Your task to perform on an android device: Clear the cart on bestbuy. Add razer blade to the cart on bestbuy, then select checkout. Image 0: 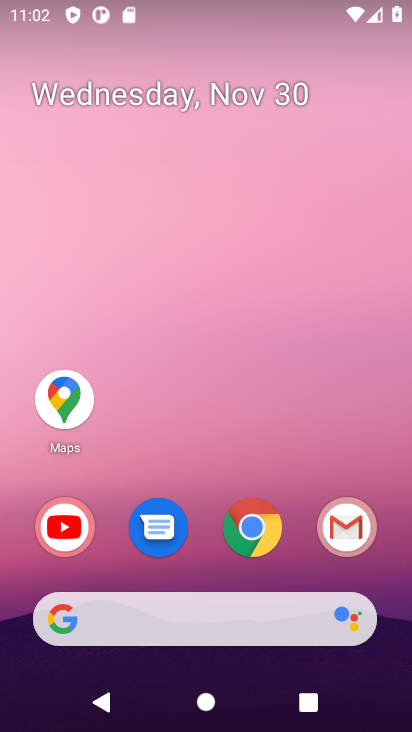
Step 0: click (262, 540)
Your task to perform on an android device: Clear the cart on bestbuy. Add razer blade to the cart on bestbuy, then select checkout. Image 1: 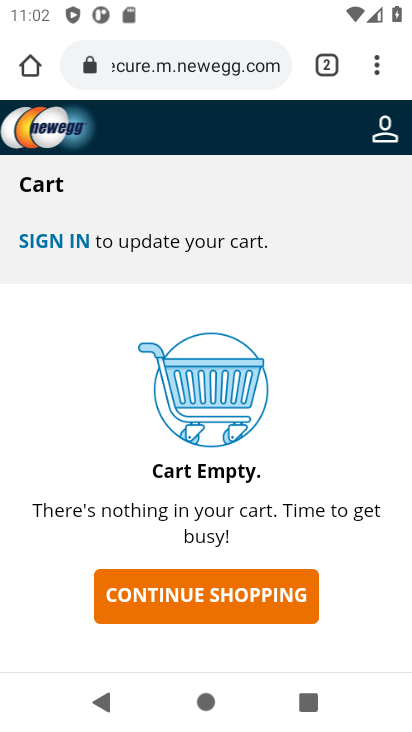
Step 1: click (181, 73)
Your task to perform on an android device: Clear the cart on bestbuy. Add razer blade to the cart on bestbuy, then select checkout. Image 2: 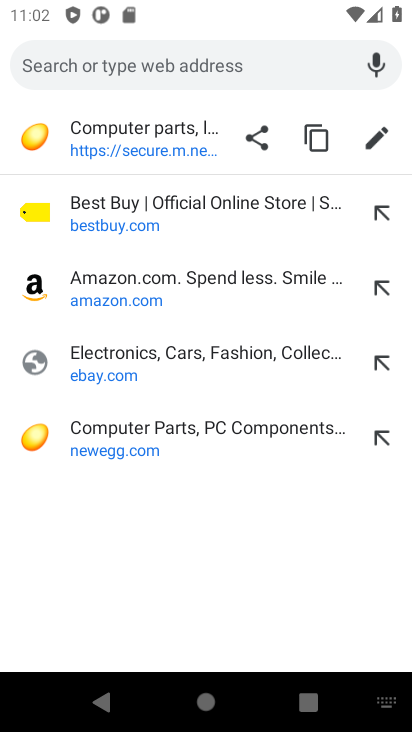
Step 2: click (95, 225)
Your task to perform on an android device: Clear the cart on bestbuy. Add razer blade to the cart on bestbuy, then select checkout. Image 3: 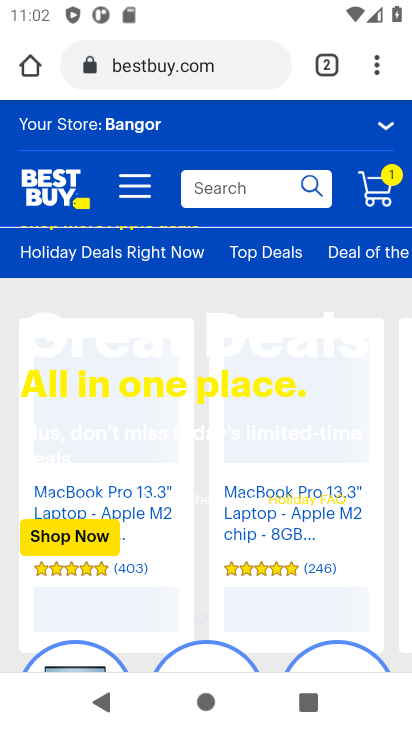
Step 3: click (371, 193)
Your task to perform on an android device: Clear the cart on bestbuy. Add razer blade to the cart on bestbuy, then select checkout. Image 4: 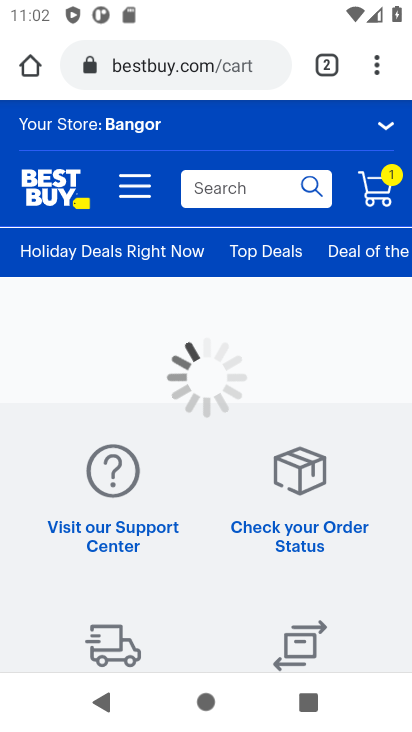
Step 4: click (371, 193)
Your task to perform on an android device: Clear the cart on bestbuy. Add razer blade to the cart on bestbuy, then select checkout. Image 5: 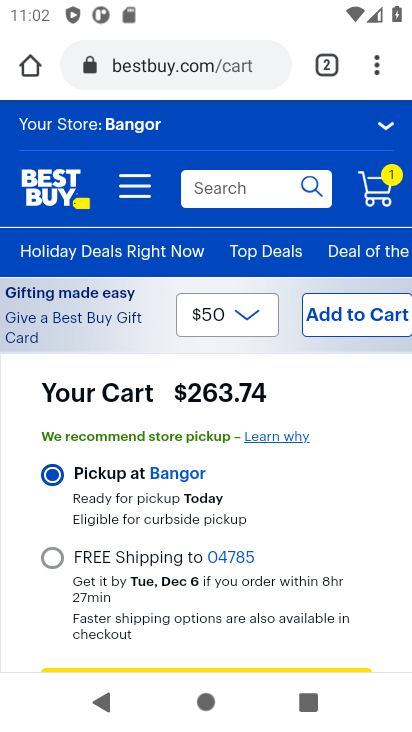
Step 5: drag from (290, 517) to (303, 236)
Your task to perform on an android device: Clear the cart on bestbuy. Add razer blade to the cart on bestbuy, then select checkout. Image 6: 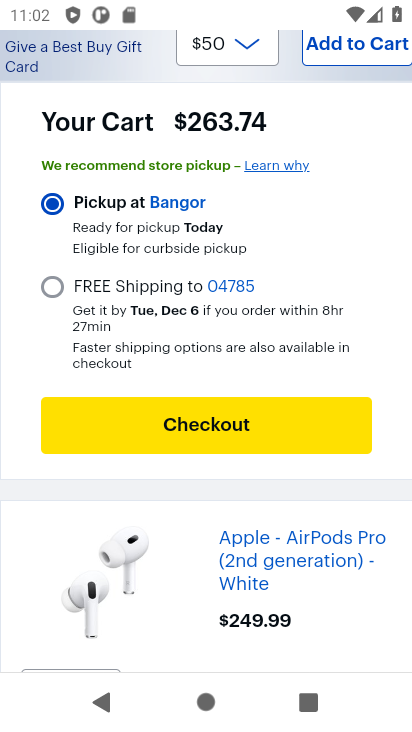
Step 6: drag from (241, 501) to (234, 235)
Your task to perform on an android device: Clear the cart on bestbuy. Add razer blade to the cart on bestbuy, then select checkout. Image 7: 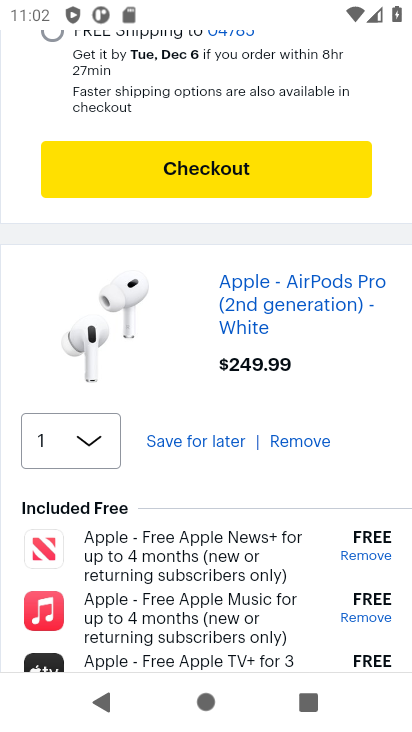
Step 7: click (297, 447)
Your task to perform on an android device: Clear the cart on bestbuy. Add razer blade to the cart on bestbuy, then select checkout. Image 8: 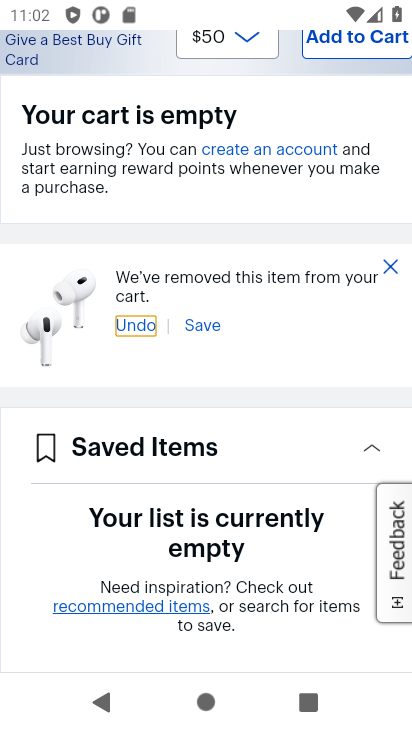
Step 8: drag from (230, 248) to (178, 520)
Your task to perform on an android device: Clear the cart on bestbuy. Add razer blade to the cart on bestbuy, then select checkout. Image 9: 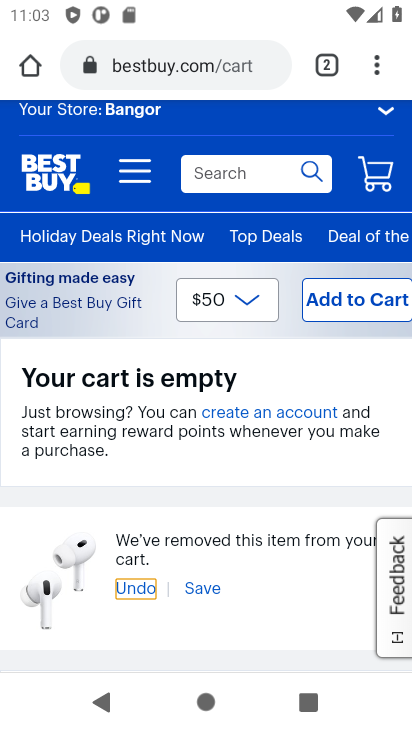
Step 9: click (212, 173)
Your task to perform on an android device: Clear the cart on bestbuy. Add razer blade to the cart on bestbuy, then select checkout. Image 10: 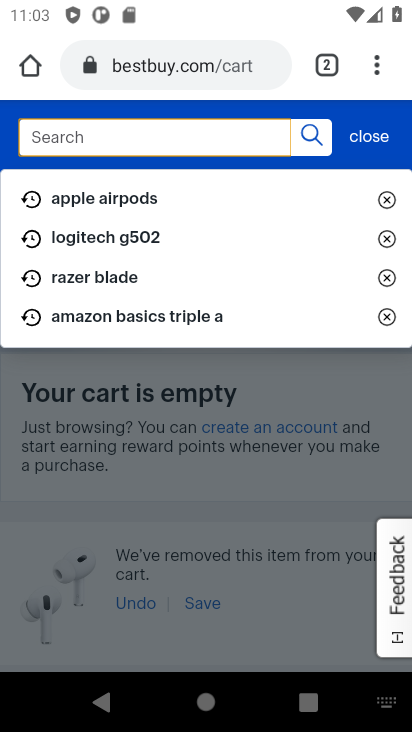
Step 10: type "razer blade"
Your task to perform on an android device: Clear the cart on bestbuy. Add razer blade to the cart on bestbuy, then select checkout. Image 11: 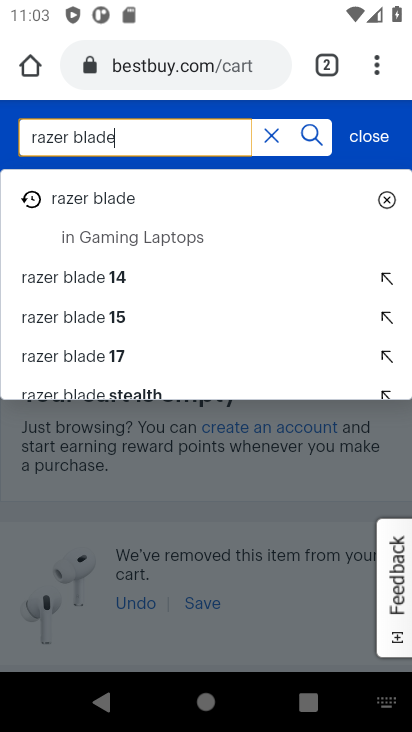
Step 11: click (92, 205)
Your task to perform on an android device: Clear the cart on bestbuy. Add razer blade to the cart on bestbuy, then select checkout. Image 12: 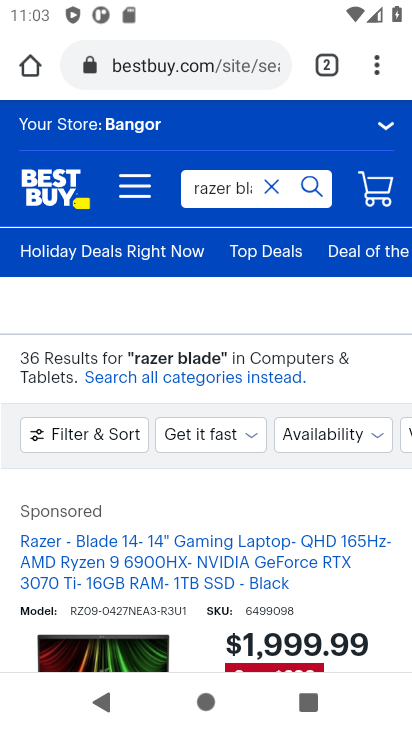
Step 12: drag from (198, 575) to (186, 392)
Your task to perform on an android device: Clear the cart on bestbuy. Add razer blade to the cart on bestbuy, then select checkout. Image 13: 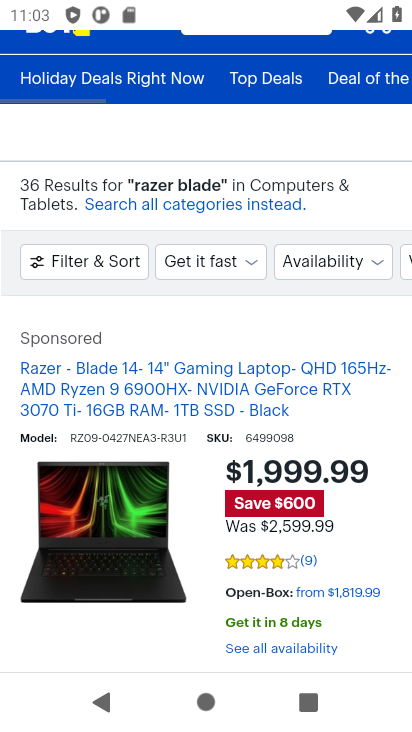
Step 13: drag from (192, 587) to (177, 388)
Your task to perform on an android device: Clear the cart on bestbuy. Add razer blade to the cart on bestbuy, then select checkout. Image 14: 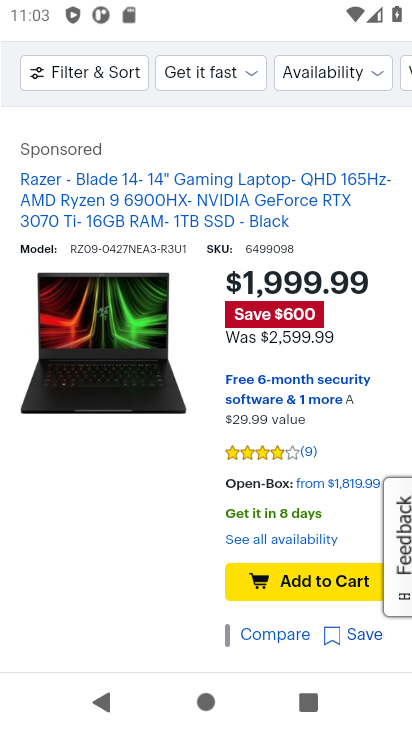
Step 14: click (294, 574)
Your task to perform on an android device: Clear the cart on bestbuy. Add razer blade to the cart on bestbuy, then select checkout. Image 15: 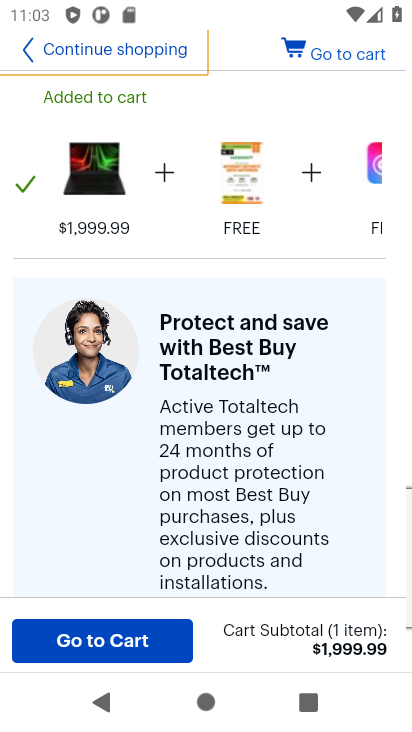
Step 15: click (335, 56)
Your task to perform on an android device: Clear the cart on bestbuy. Add razer blade to the cart on bestbuy, then select checkout. Image 16: 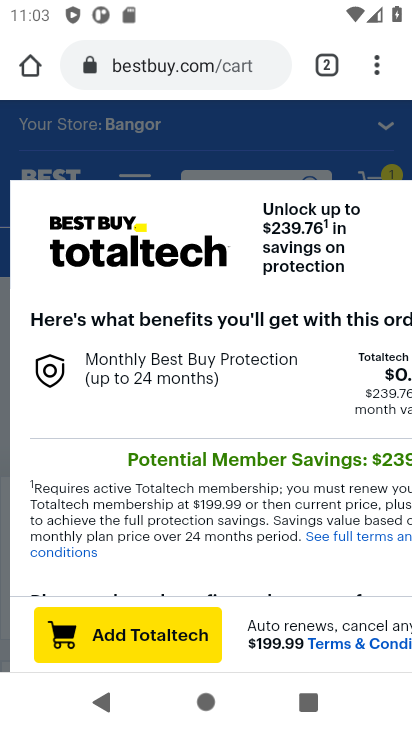
Step 16: click (351, 136)
Your task to perform on an android device: Clear the cart on bestbuy. Add razer blade to the cart on bestbuy, then select checkout. Image 17: 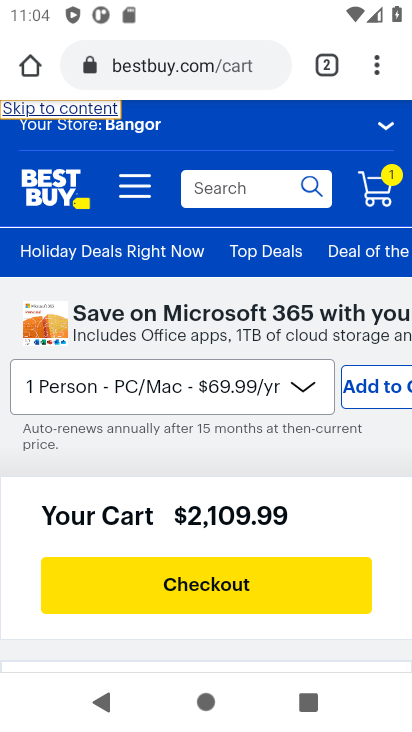
Step 17: click (190, 576)
Your task to perform on an android device: Clear the cart on bestbuy. Add razer blade to the cart on bestbuy, then select checkout. Image 18: 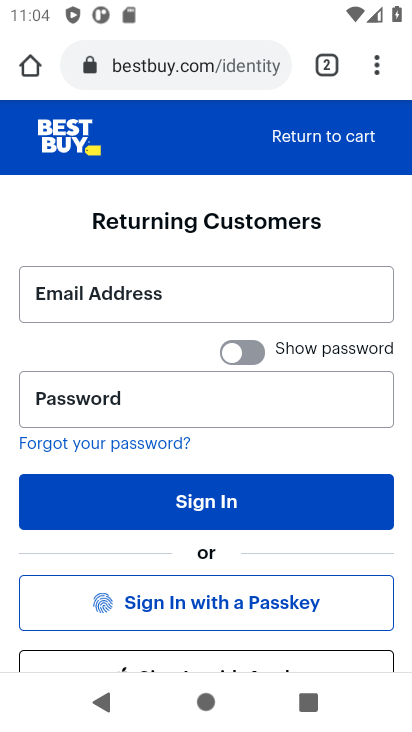
Step 18: task complete